Your task to perform on an android device: Search for Italian restaurants on Maps Image 0: 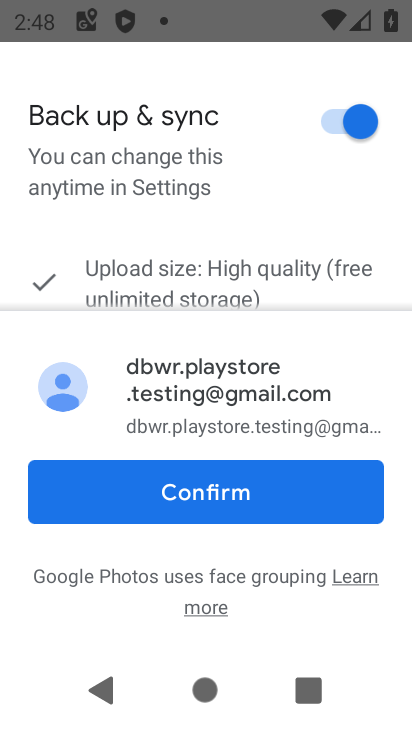
Step 0: task complete